Your task to perform on an android device: turn off translation in the chrome app Image 0: 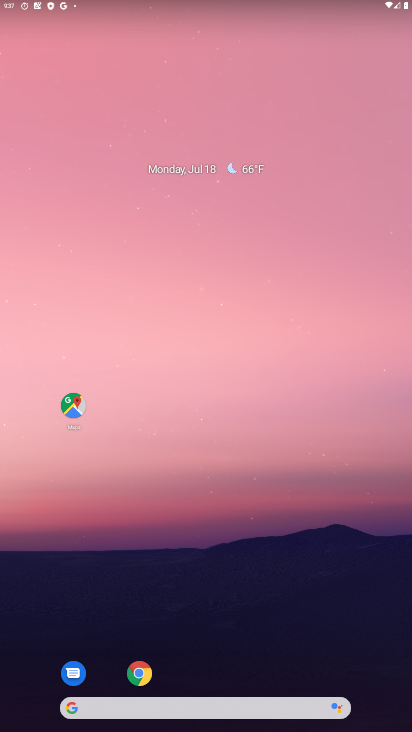
Step 0: drag from (203, 671) to (176, 176)
Your task to perform on an android device: turn off translation in the chrome app Image 1: 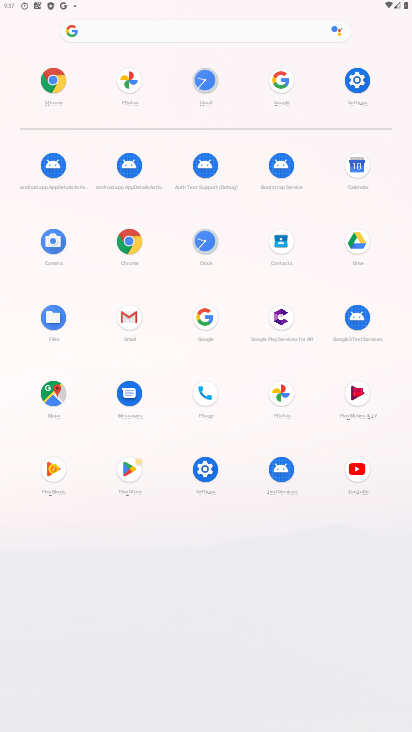
Step 1: click (130, 237)
Your task to perform on an android device: turn off translation in the chrome app Image 2: 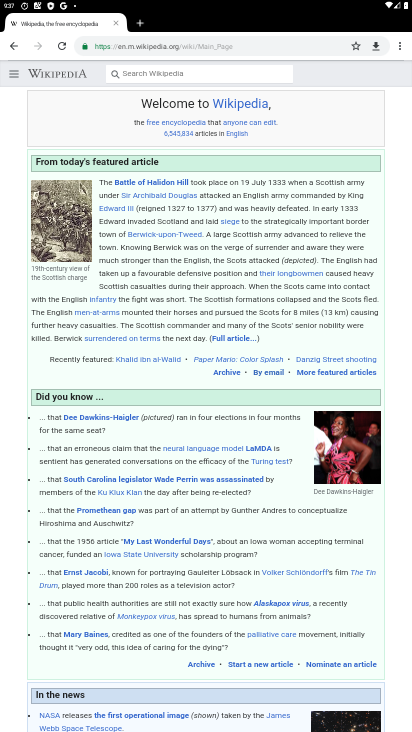
Step 2: click (398, 48)
Your task to perform on an android device: turn off translation in the chrome app Image 3: 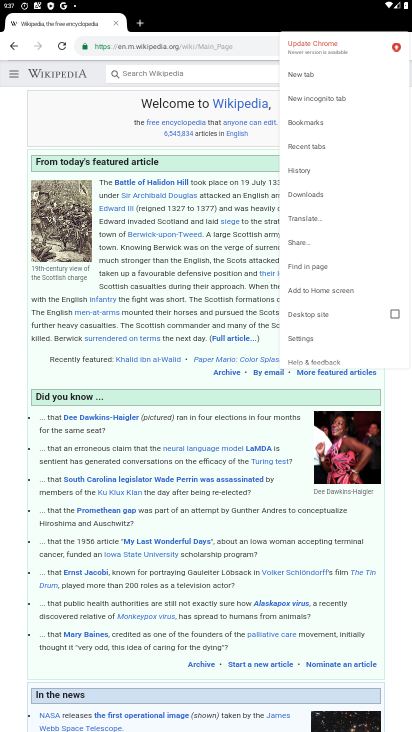
Step 3: click (310, 340)
Your task to perform on an android device: turn off translation in the chrome app Image 4: 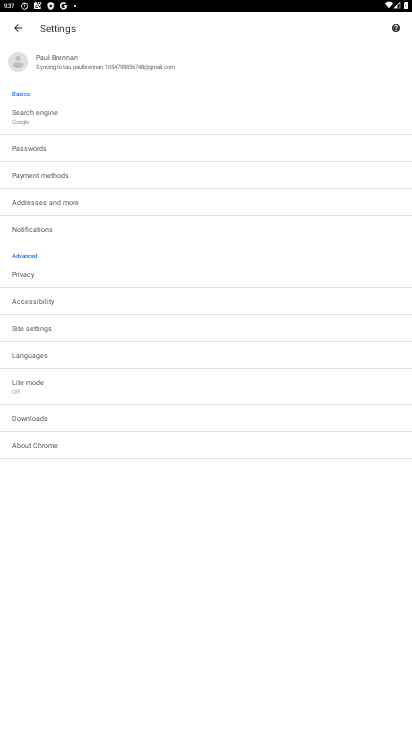
Step 4: click (42, 354)
Your task to perform on an android device: turn off translation in the chrome app Image 5: 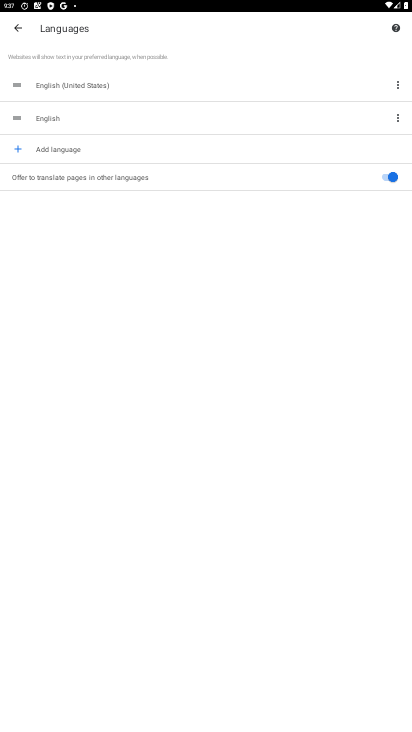
Step 5: click (388, 176)
Your task to perform on an android device: turn off translation in the chrome app Image 6: 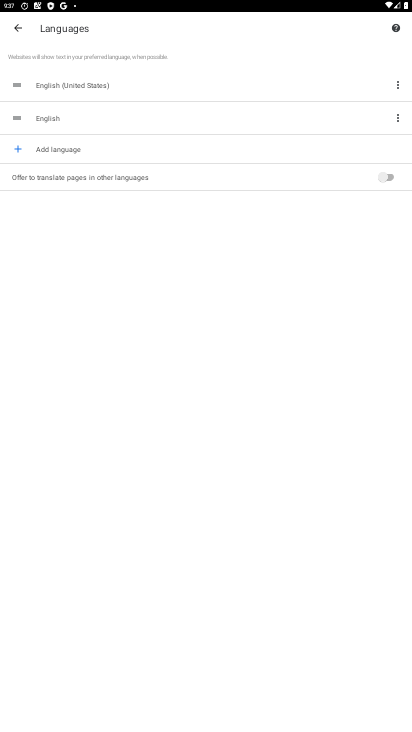
Step 6: task complete